Your task to perform on an android device: turn off translation in the chrome app Image 0: 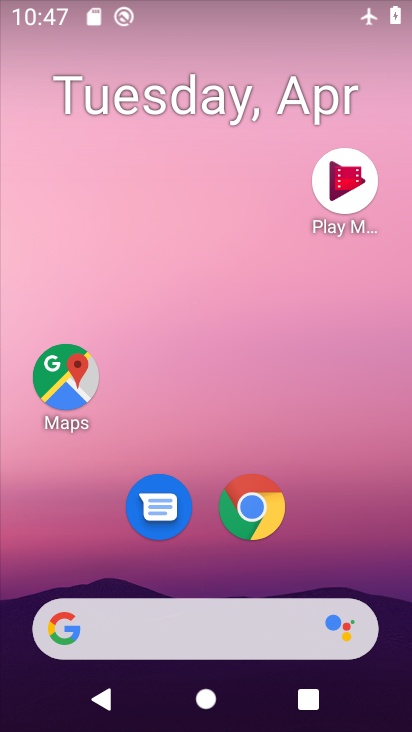
Step 0: click (247, 505)
Your task to perform on an android device: turn off translation in the chrome app Image 1: 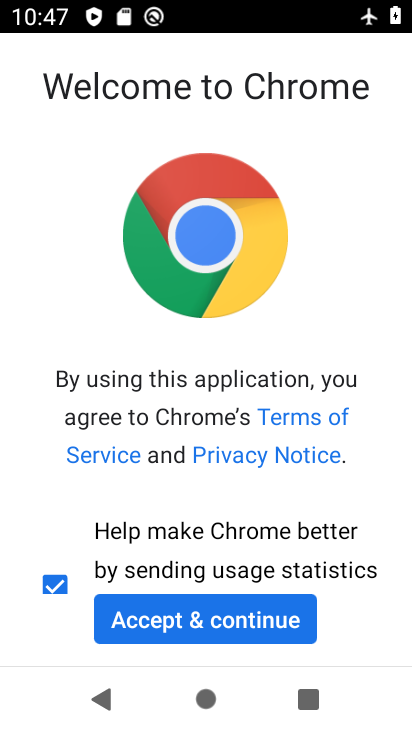
Step 1: click (161, 616)
Your task to perform on an android device: turn off translation in the chrome app Image 2: 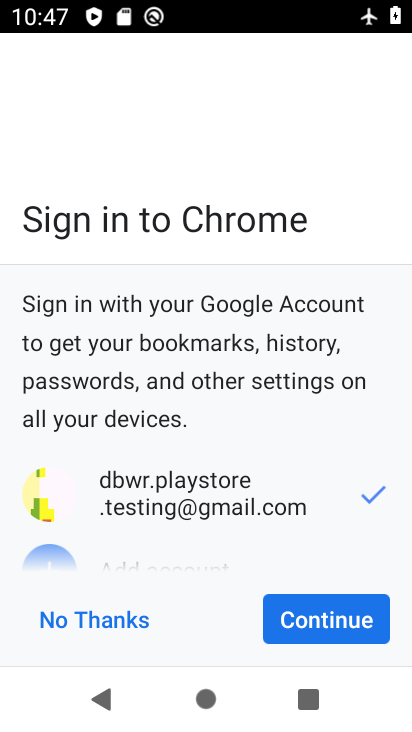
Step 2: click (301, 625)
Your task to perform on an android device: turn off translation in the chrome app Image 3: 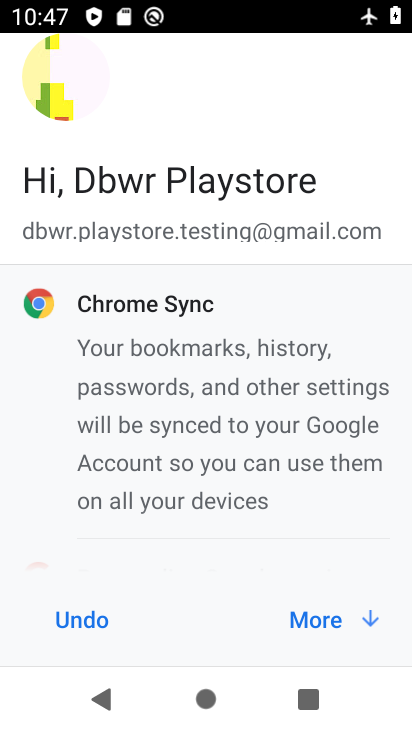
Step 3: click (312, 607)
Your task to perform on an android device: turn off translation in the chrome app Image 4: 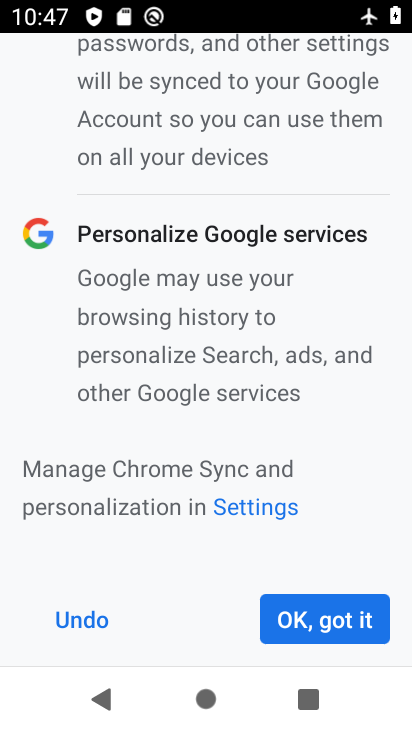
Step 4: click (336, 619)
Your task to perform on an android device: turn off translation in the chrome app Image 5: 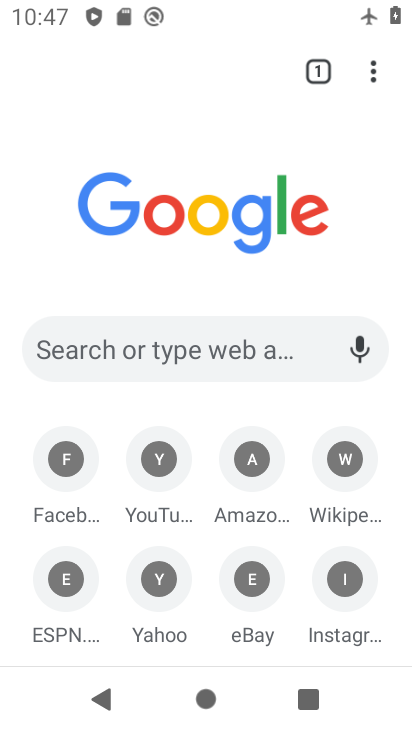
Step 5: click (374, 63)
Your task to perform on an android device: turn off translation in the chrome app Image 6: 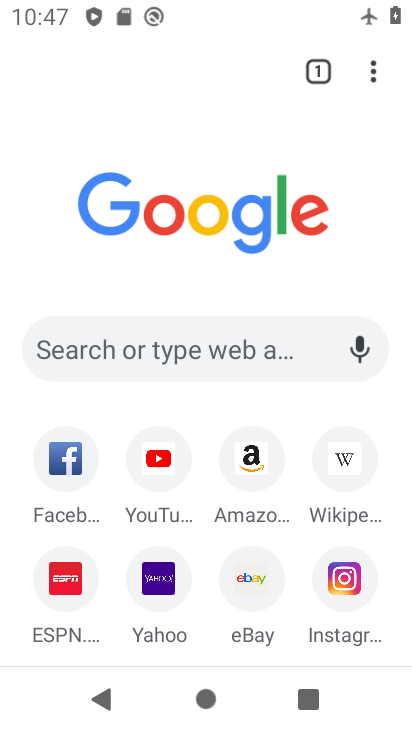
Step 6: click (375, 67)
Your task to perform on an android device: turn off translation in the chrome app Image 7: 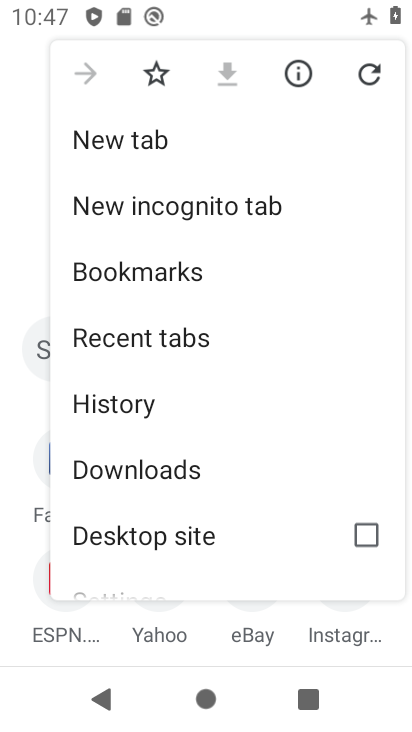
Step 7: drag from (209, 499) to (289, 197)
Your task to perform on an android device: turn off translation in the chrome app Image 8: 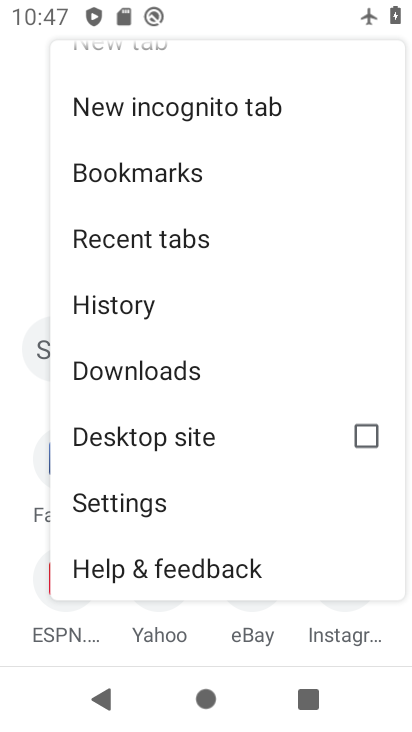
Step 8: click (130, 498)
Your task to perform on an android device: turn off translation in the chrome app Image 9: 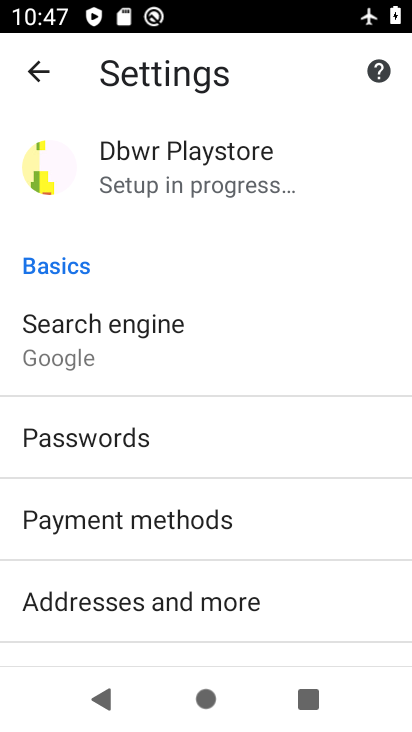
Step 9: drag from (162, 550) to (223, 150)
Your task to perform on an android device: turn off translation in the chrome app Image 10: 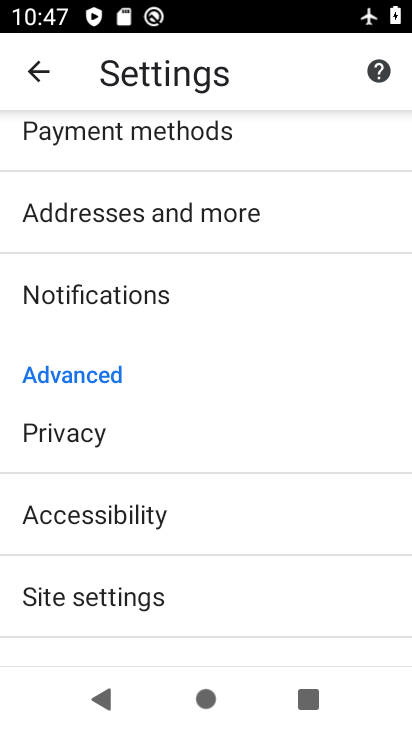
Step 10: drag from (145, 608) to (187, 368)
Your task to perform on an android device: turn off translation in the chrome app Image 11: 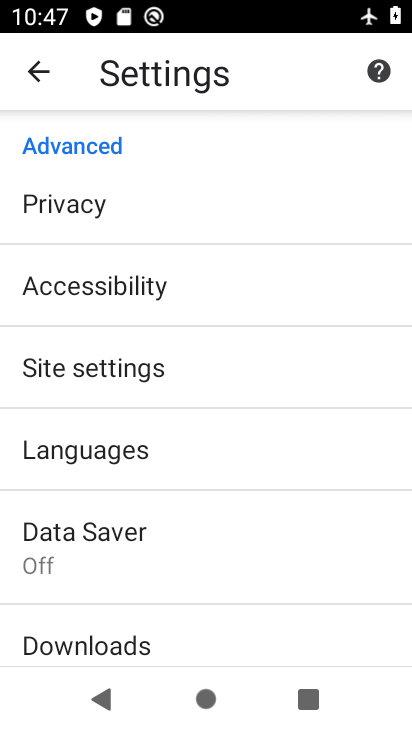
Step 11: click (91, 444)
Your task to perform on an android device: turn off translation in the chrome app Image 12: 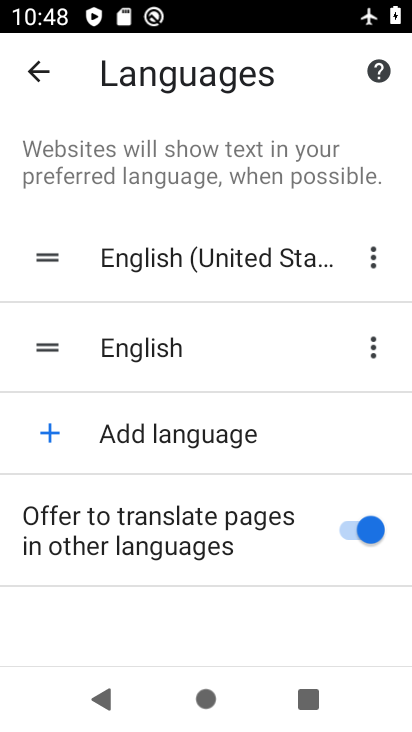
Step 12: click (354, 530)
Your task to perform on an android device: turn off translation in the chrome app Image 13: 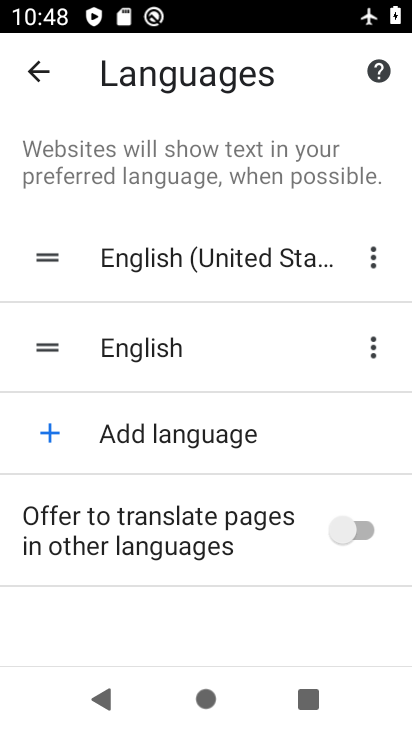
Step 13: task complete